Your task to perform on an android device: Search for pizza restaurants on Maps Image 0: 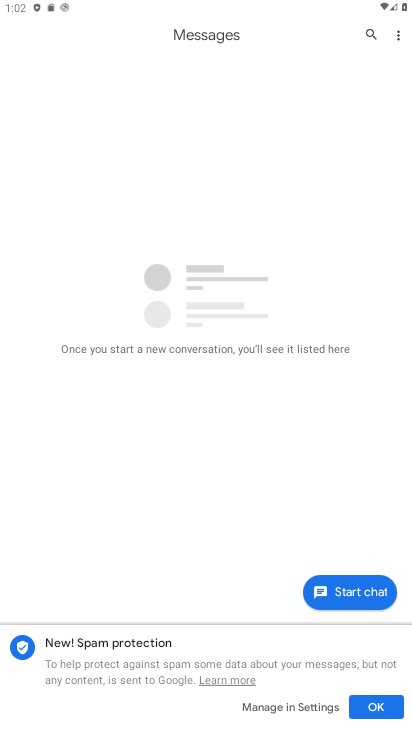
Step 0: task complete